Your task to perform on an android device: Check the weather Image 0: 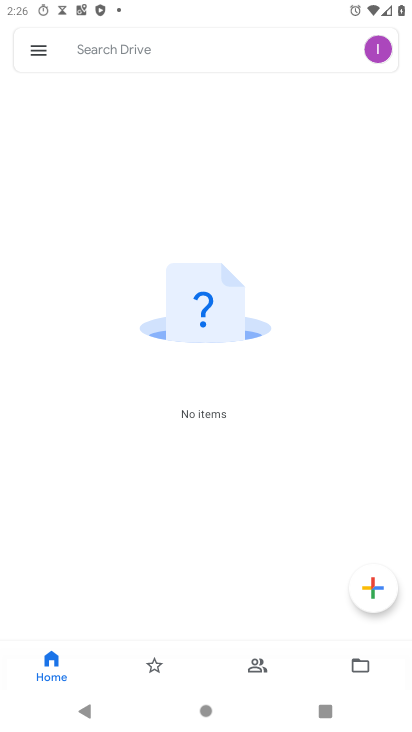
Step 0: press home button
Your task to perform on an android device: Check the weather Image 1: 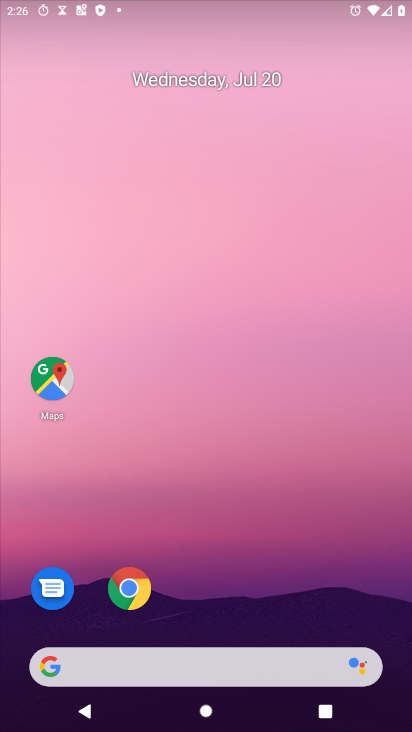
Step 1: drag from (277, 624) to (348, 24)
Your task to perform on an android device: Check the weather Image 2: 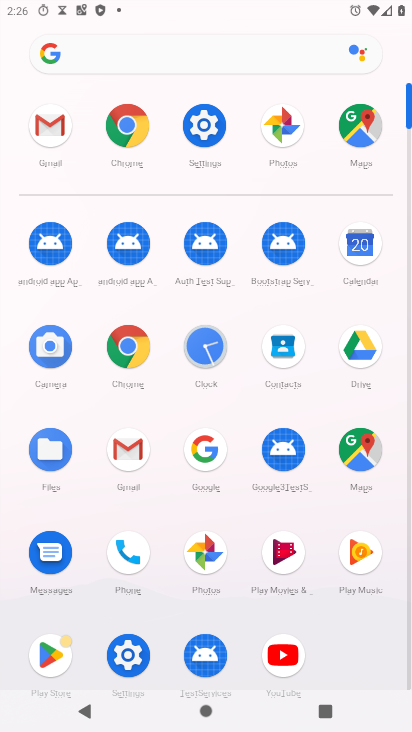
Step 2: click (123, 344)
Your task to perform on an android device: Check the weather Image 3: 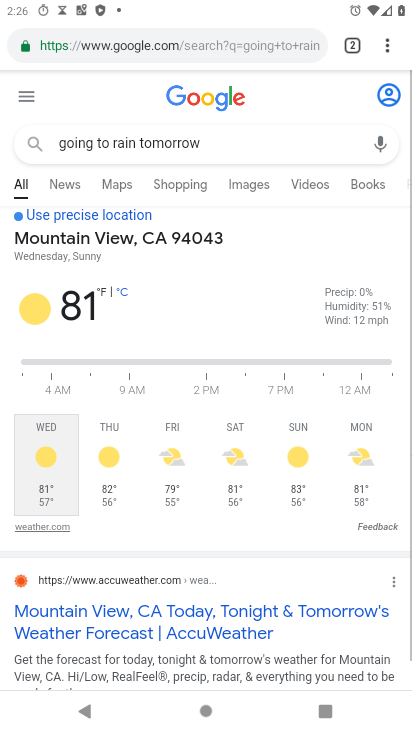
Step 3: click (192, 47)
Your task to perform on an android device: Check the weather Image 4: 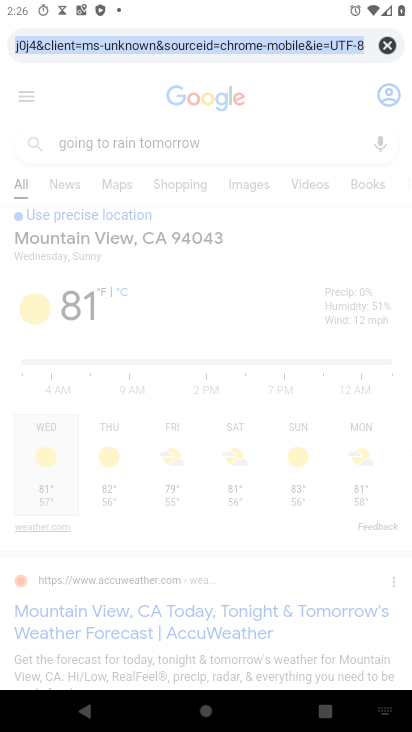
Step 4: type "check the weather"
Your task to perform on an android device: Check the weather Image 5: 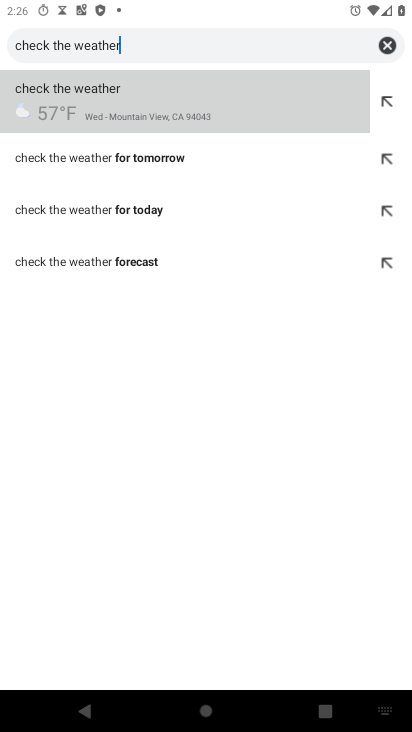
Step 5: click (111, 92)
Your task to perform on an android device: Check the weather Image 6: 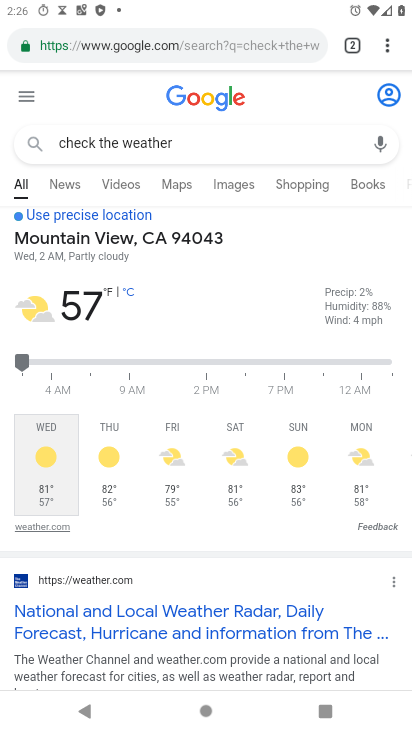
Step 6: task complete